Your task to perform on an android device: Search for pizza restaurants on Maps Image 0: 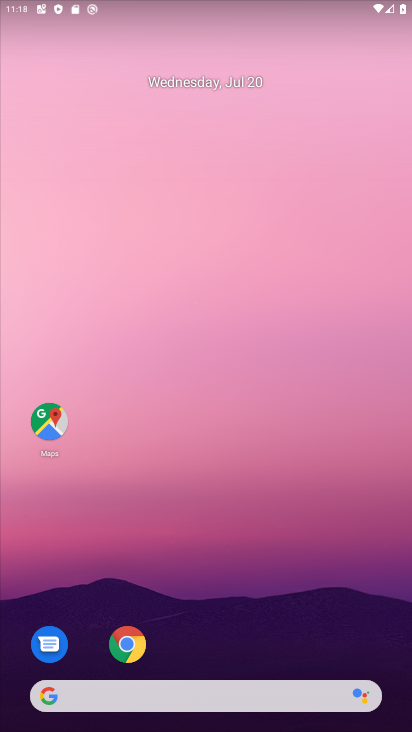
Step 0: click (57, 407)
Your task to perform on an android device: Search for pizza restaurants on Maps Image 1: 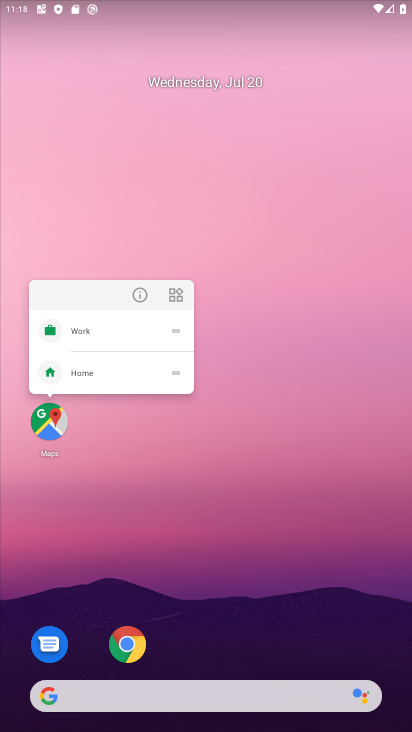
Step 1: click (57, 407)
Your task to perform on an android device: Search for pizza restaurants on Maps Image 2: 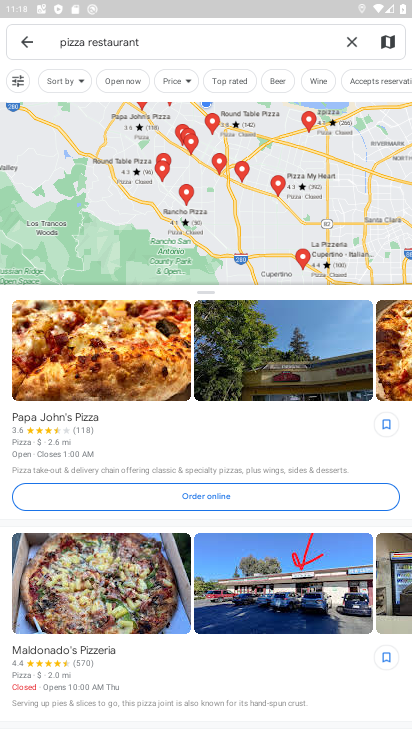
Step 2: task complete